Your task to perform on an android device: toggle show notifications on the lock screen Image 0: 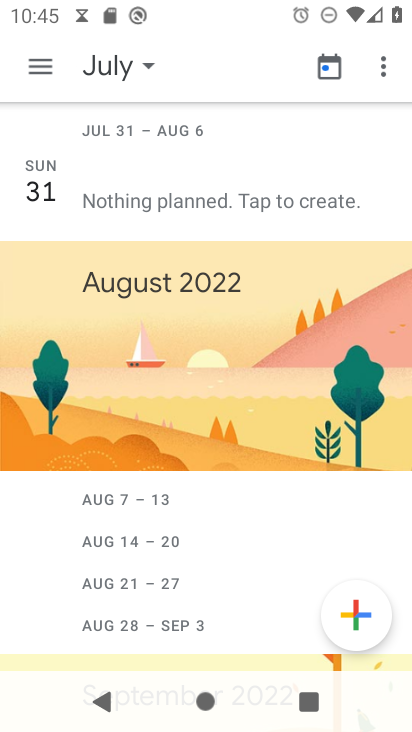
Step 0: press home button
Your task to perform on an android device: toggle show notifications on the lock screen Image 1: 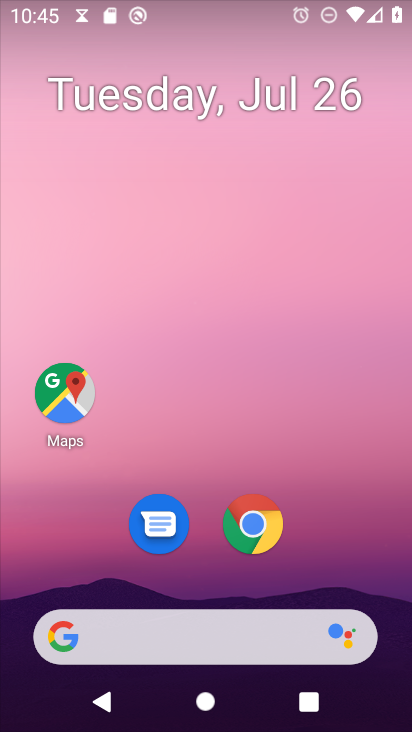
Step 1: drag from (188, 635) to (247, 222)
Your task to perform on an android device: toggle show notifications on the lock screen Image 2: 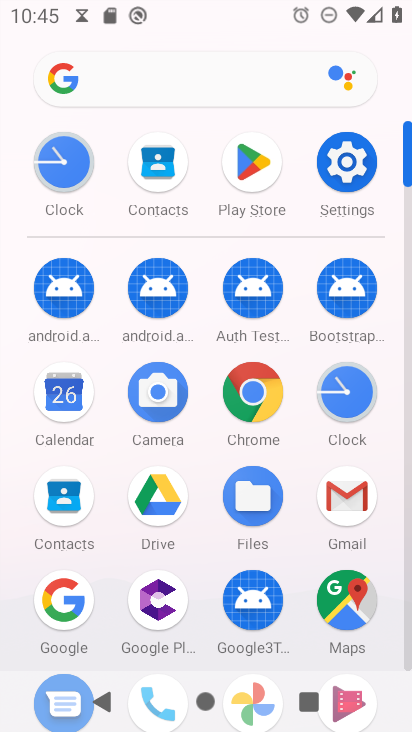
Step 2: click (334, 159)
Your task to perform on an android device: toggle show notifications on the lock screen Image 3: 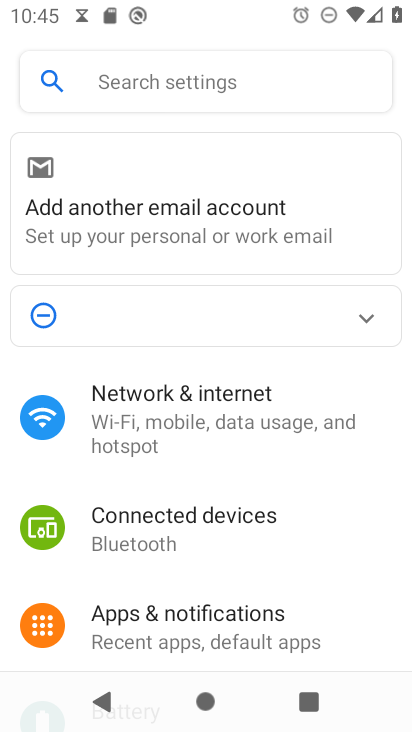
Step 3: click (216, 627)
Your task to perform on an android device: toggle show notifications on the lock screen Image 4: 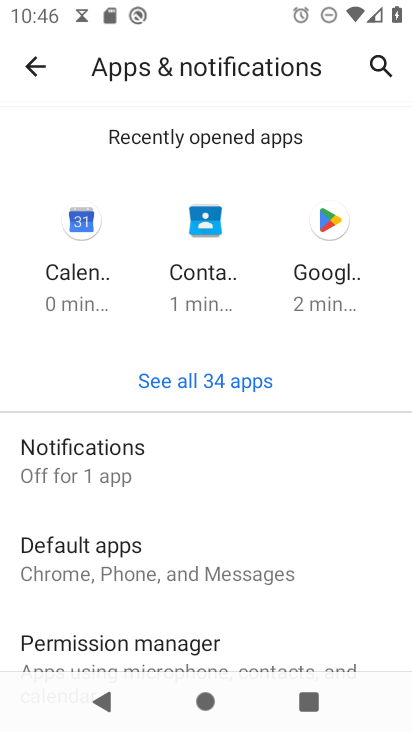
Step 4: drag from (186, 618) to (260, 178)
Your task to perform on an android device: toggle show notifications on the lock screen Image 5: 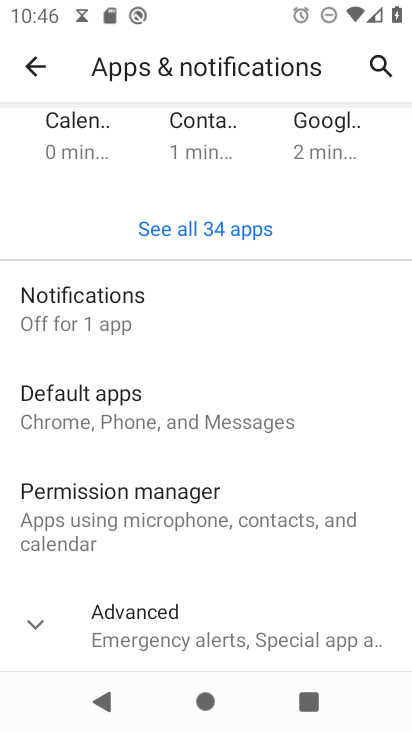
Step 5: click (110, 365)
Your task to perform on an android device: toggle show notifications on the lock screen Image 6: 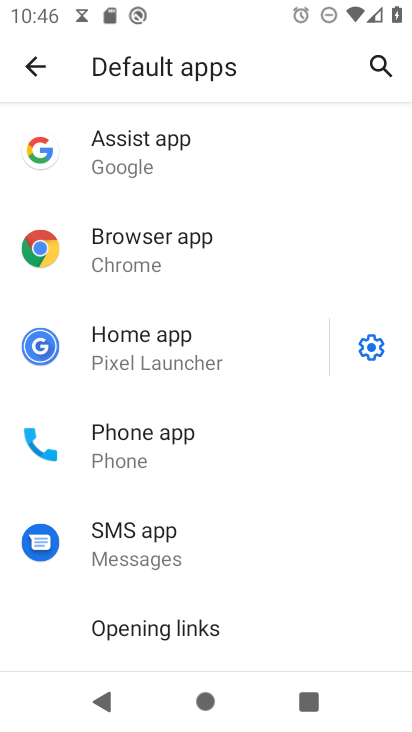
Step 6: drag from (286, 611) to (272, 45)
Your task to perform on an android device: toggle show notifications on the lock screen Image 7: 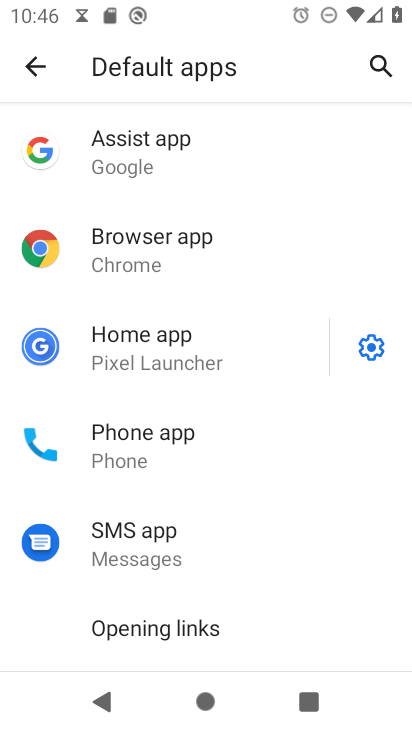
Step 7: click (40, 65)
Your task to perform on an android device: toggle show notifications on the lock screen Image 8: 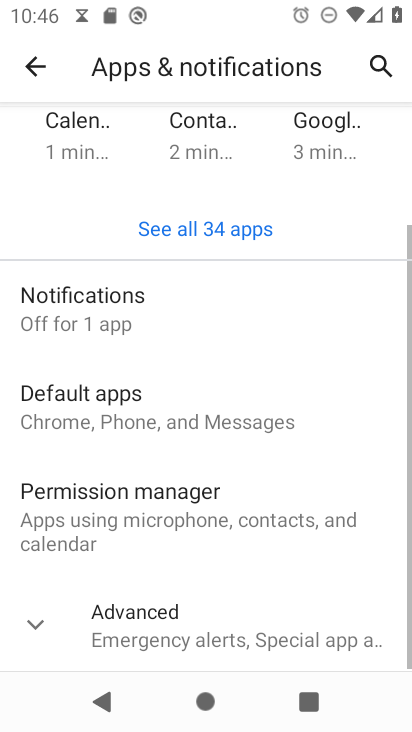
Step 8: click (104, 307)
Your task to perform on an android device: toggle show notifications on the lock screen Image 9: 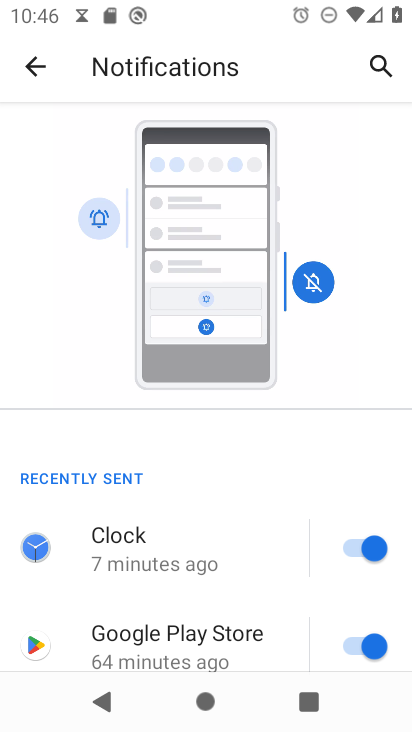
Step 9: drag from (201, 607) to (319, 174)
Your task to perform on an android device: toggle show notifications on the lock screen Image 10: 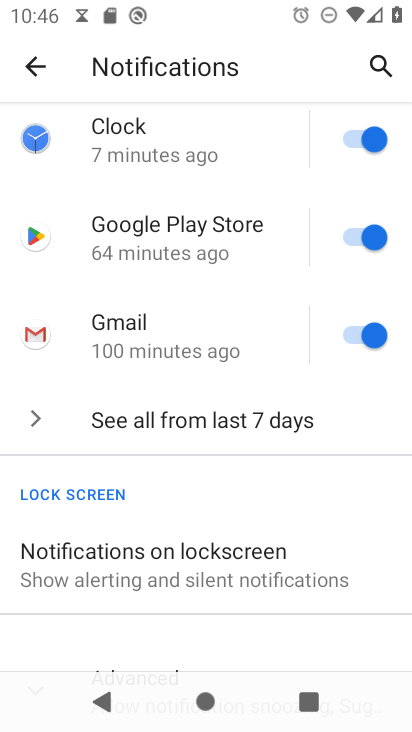
Step 10: click (212, 620)
Your task to perform on an android device: toggle show notifications on the lock screen Image 11: 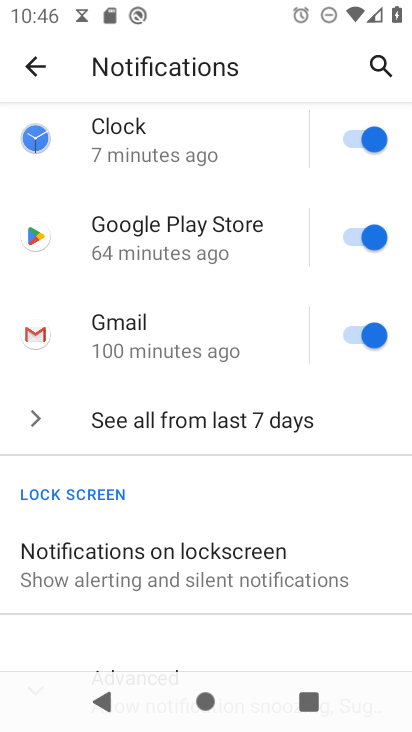
Step 11: click (219, 599)
Your task to perform on an android device: toggle show notifications on the lock screen Image 12: 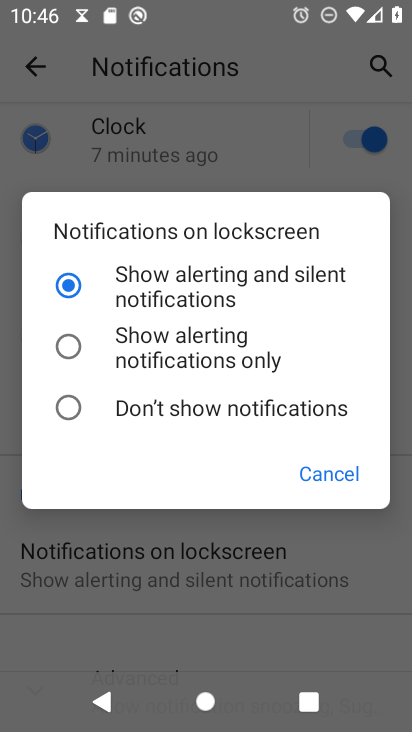
Step 12: click (67, 404)
Your task to perform on an android device: toggle show notifications on the lock screen Image 13: 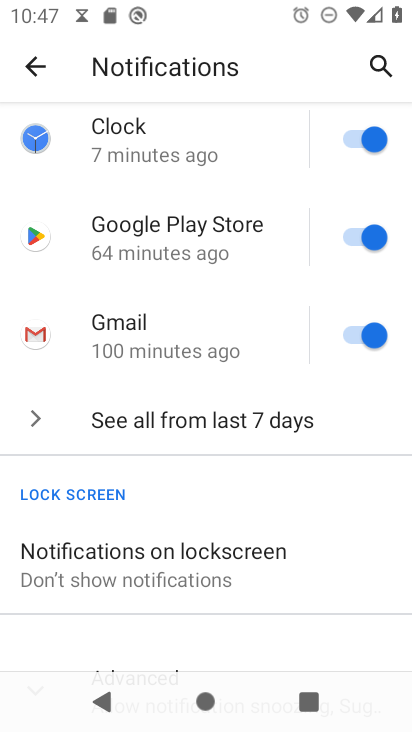
Step 13: task complete